Your task to perform on an android device: change text size in settings app Image 0: 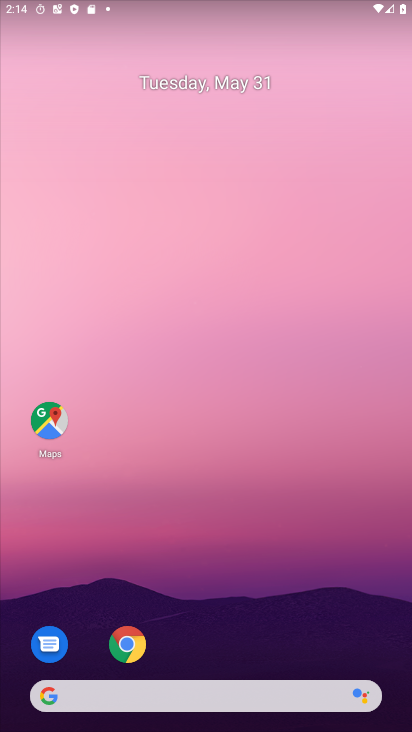
Step 0: drag from (401, 706) to (404, 273)
Your task to perform on an android device: change text size in settings app Image 1: 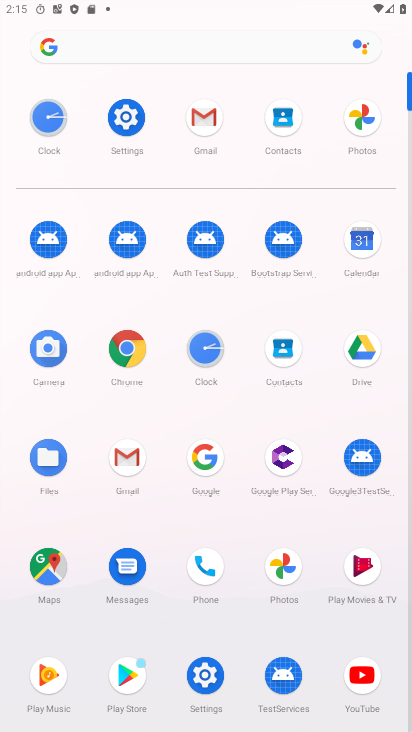
Step 1: click (203, 677)
Your task to perform on an android device: change text size in settings app Image 2: 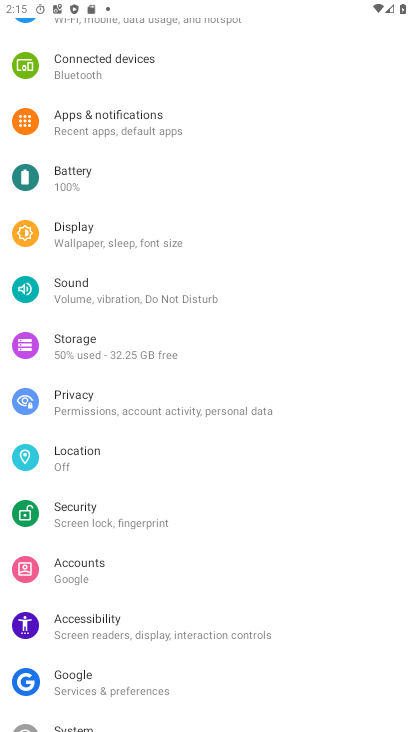
Step 2: drag from (308, 700) to (375, 477)
Your task to perform on an android device: change text size in settings app Image 3: 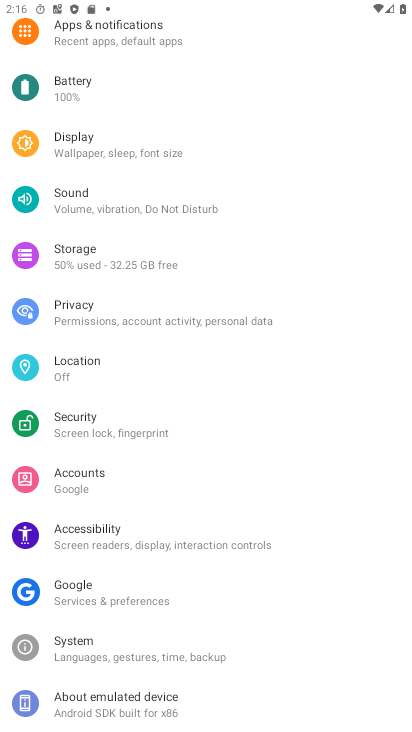
Step 3: drag from (305, 106) to (283, 552)
Your task to perform on an android device: change text size in settings app Image 4: 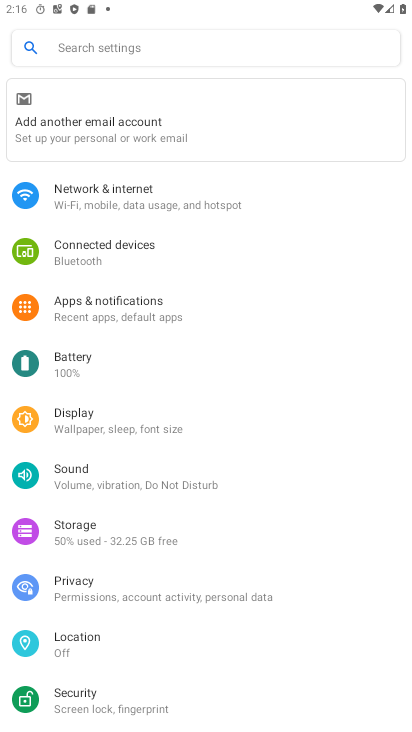
Step 4: drag from (330, 688) to (338, 335)
Your task to perform on an android device: change text size in settings app Image 5: 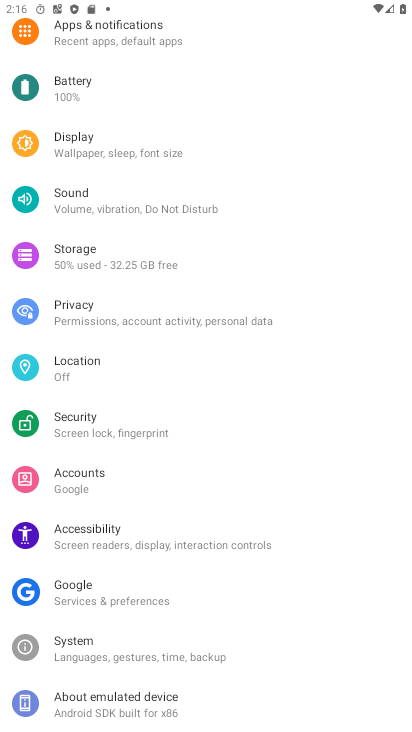
Step 5: click (94, 146)
Your task to perform on an android device: change text size in settings app Image 6: 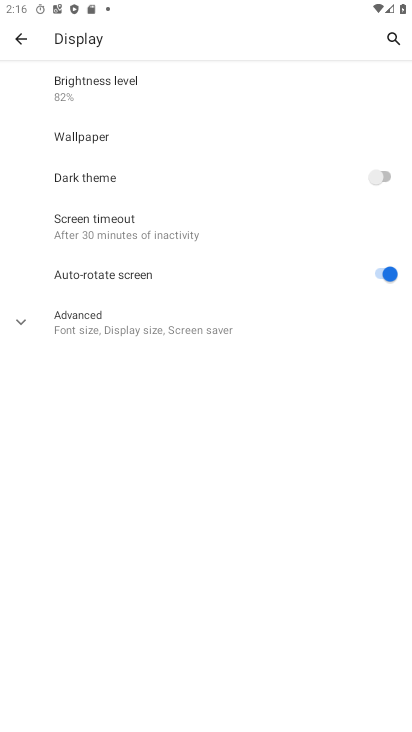
Step 6: click (31, 322)
Your task to perform on an android device: change text size in settings app Image 7: 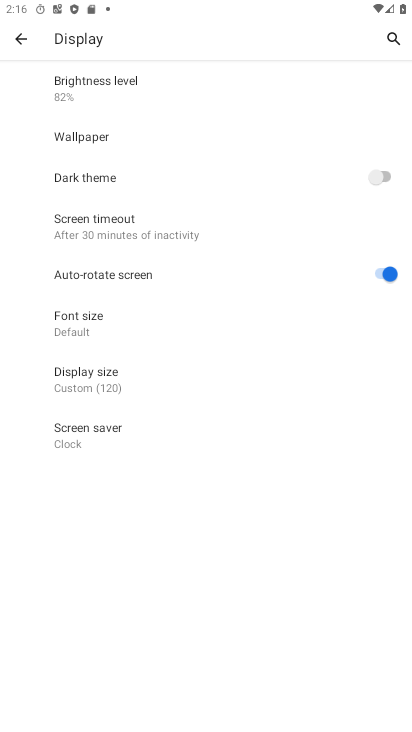
Step 7: click (75, 321)
Your task to perform on an android device: change text size in settings app Image 8: 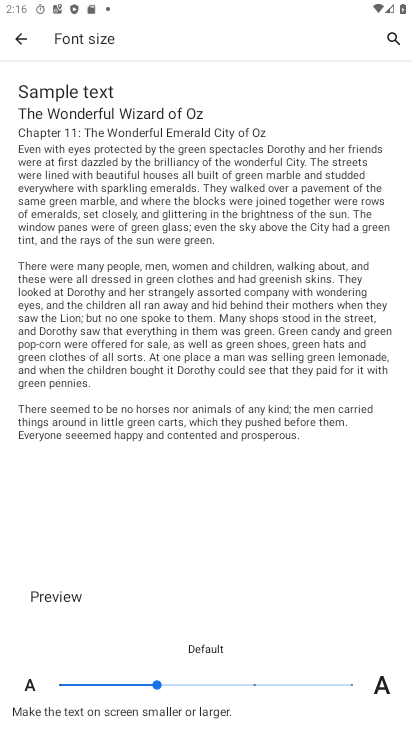
Step 8: click (60, 685)
Your task to perform on an android device: change text size in settings app Image 9: 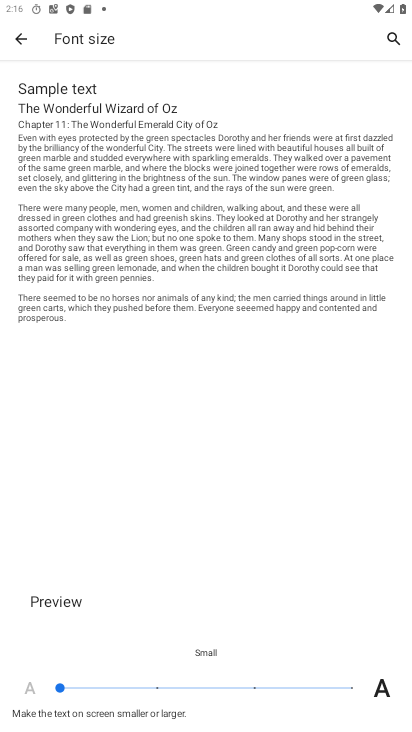
Step 9: task complete